Your task to perform on an android device: turn pop-ups on in chrome Image 0: 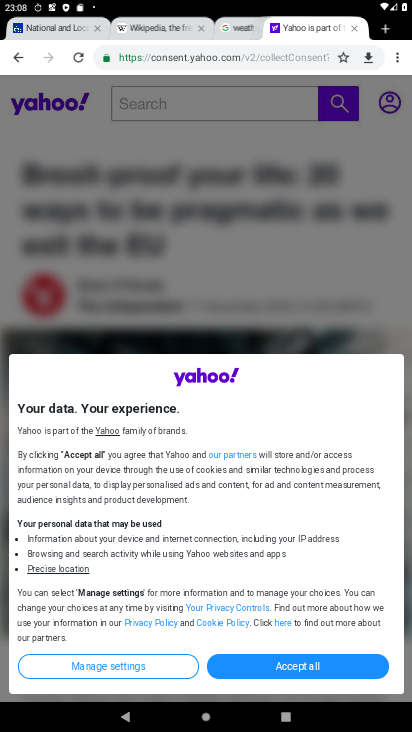
Step 0: press home button
Your task to perform on an android device: turn pop-ups on in chrome Image 1: 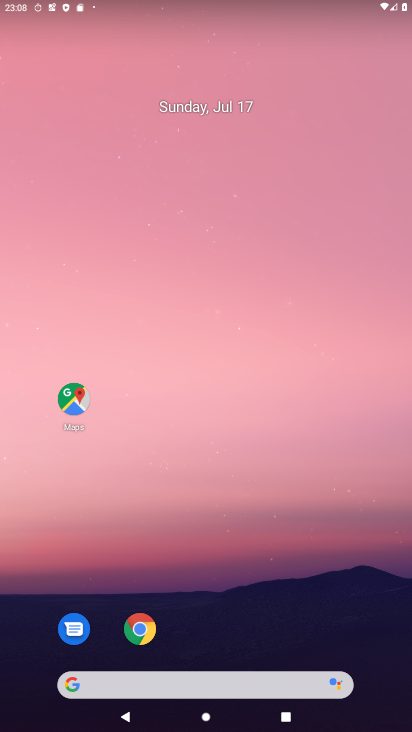
Step 1: drag from (253, 640) to (250, 199)
Your task to perform on an android device: turn pop-ups on in chrome Image 2: 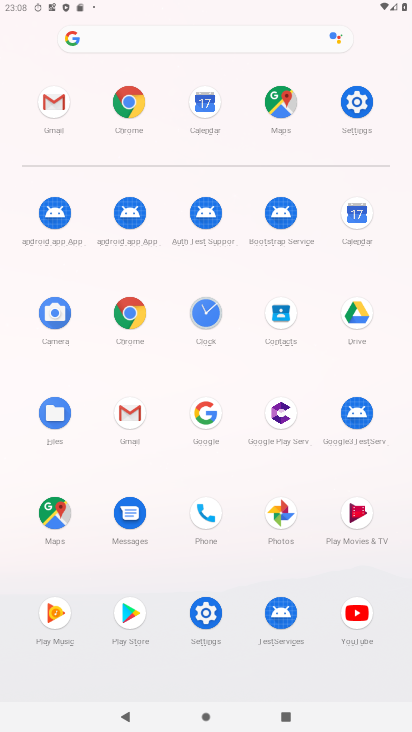
Step 2: click (129, 319)
Your task to perform on an android device: turn pop-ups on in chrome Image 3: 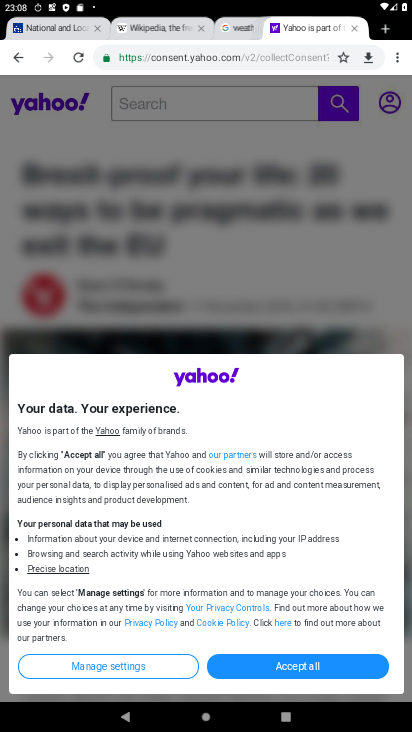
Step 3: click (398, 59)
Your task to perform on an android device: turn pop-ups on in chrome Image 4: 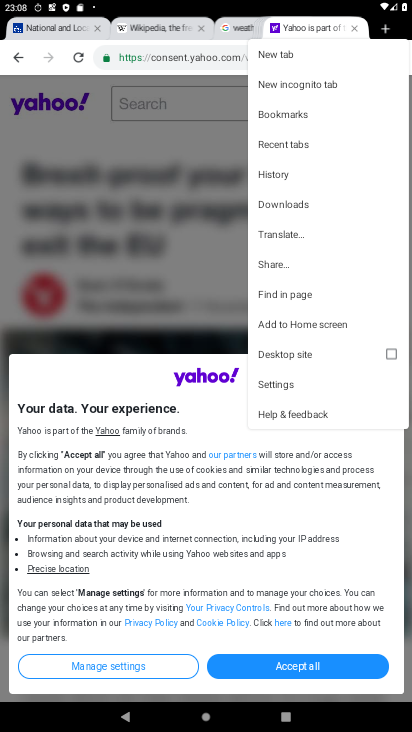
Step 4: click (273, 383)
Your task to perform on an android device: turn pop-ups on in chrome Image 5: 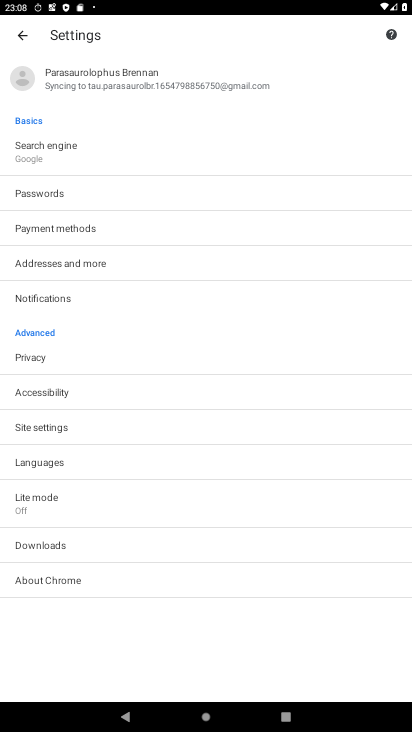
Step 5: click (57, 425)
Your task to perform on an android device: turn pop-ups on in chrome Image 6: 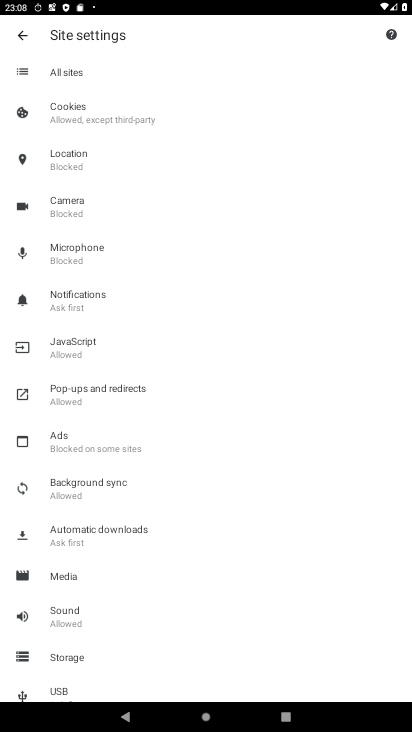
Step 6: click (72, 389)
Your task to perform on an android device: turn pop-ups on in chrome Image 7: 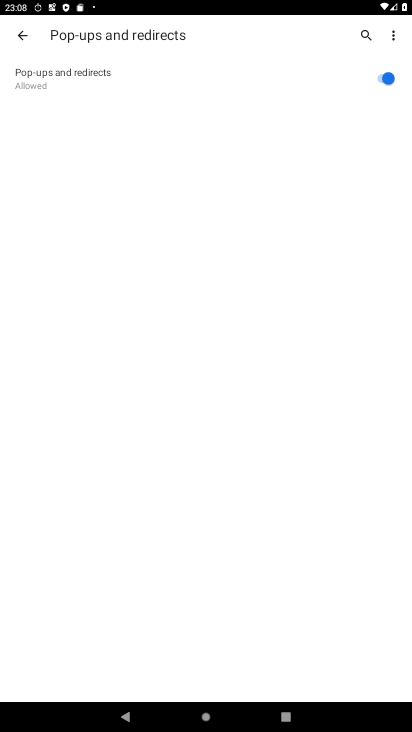
Step 7: task complete